Your task to perform on an android device: Open the map Image 0: 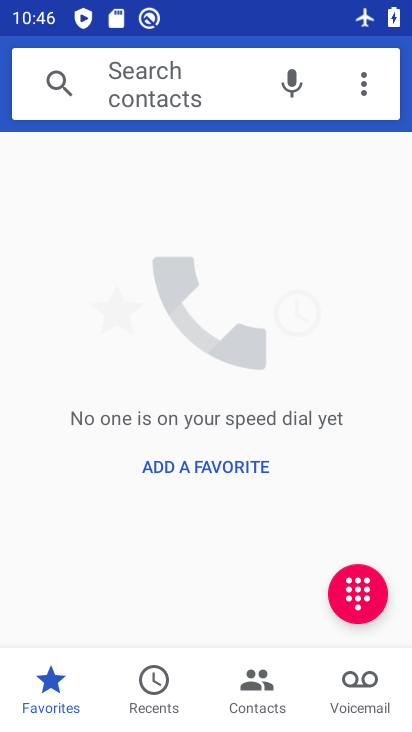
Step 0: press home button
Your task to perform on an android device: Open the map Image 1: 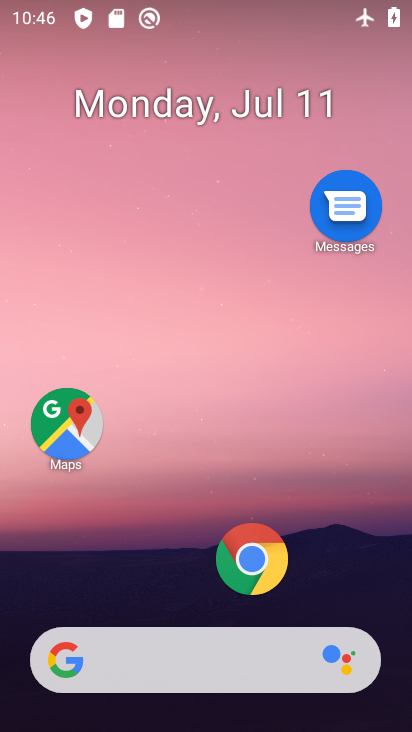
Step 1: drag from (350, 550) to (383, 92)
Your task to perform on an android device: Open the map Image 2: 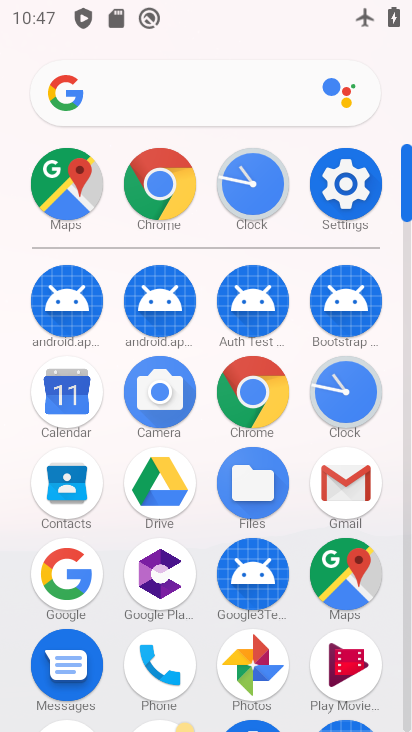
Step 2: click (347, 572)
Your task to perform on an android device: Open the map Image 3: 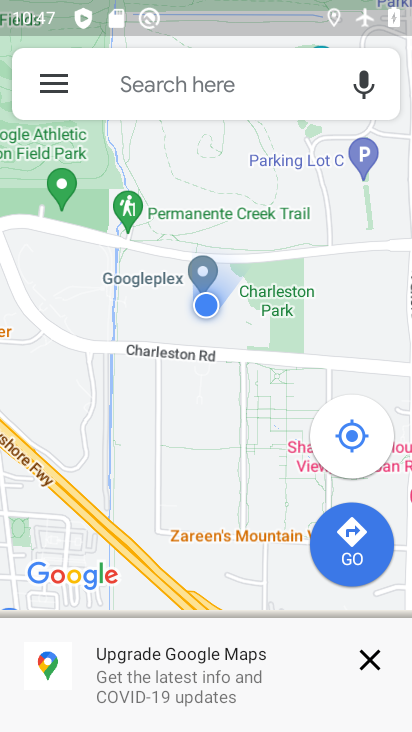
Step 3: task complete